Your task to perform on an android device: Open my contact list Image 0: 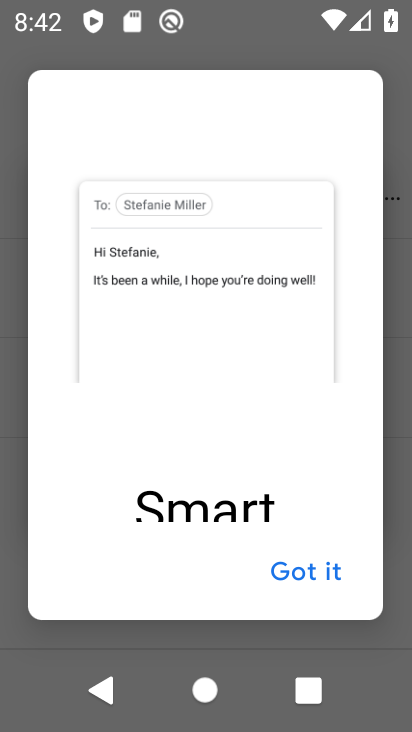
Step 0: press home button
Your task to perform on an android device: Open my contact list Image 1: 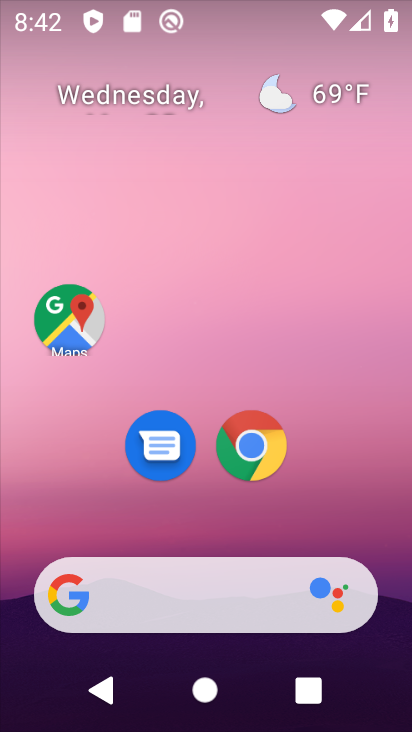
Step 1: drag from (261, 507) to (270, 114)
Your task to perform on an android device: Open my contact list Image 2: 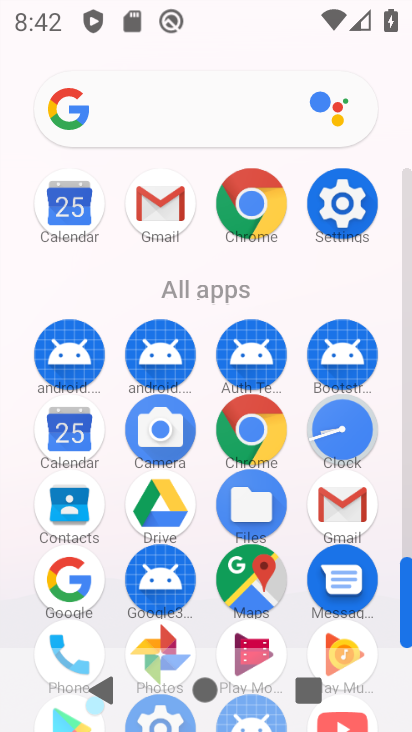
Step 2: click (63, 509)
Your task to perform on an android device: Open my contact list Image 3: 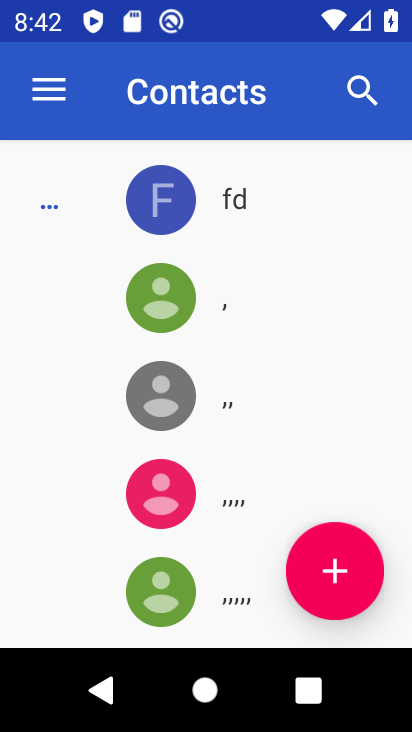
Step 3: task complete